Your task to perform on an android device: Open eBay Image 0: 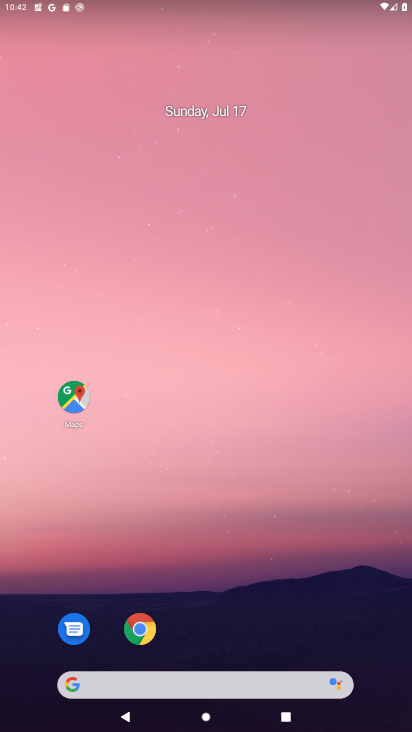
Step 0: drag from (198, 684) to (240, 210)
Your task to perform on an android device: Open eBay Image 1: 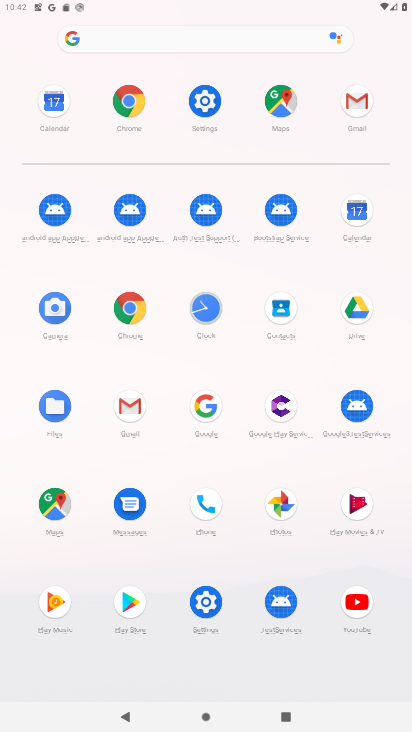
Step 1: click (127, 101)
Your task to perform on an android device: Open eBay Image 2: 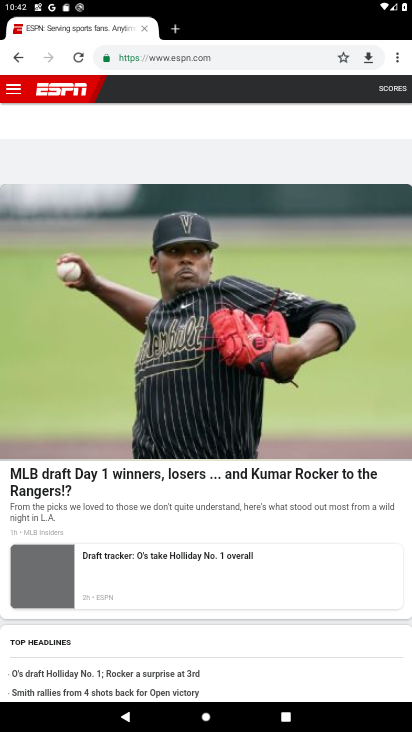
Step 2: click (242, 63)
Your task to perform on an android device: Open eBay Image 3: 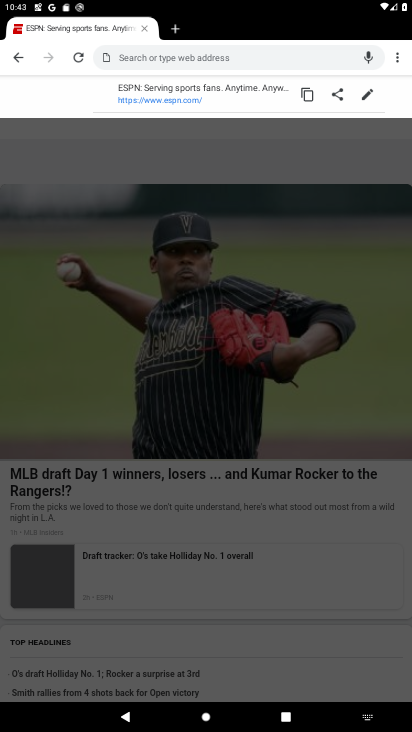
Step 3: type "eBay"
Your task to perform on an android device: Open eBay Image 4: 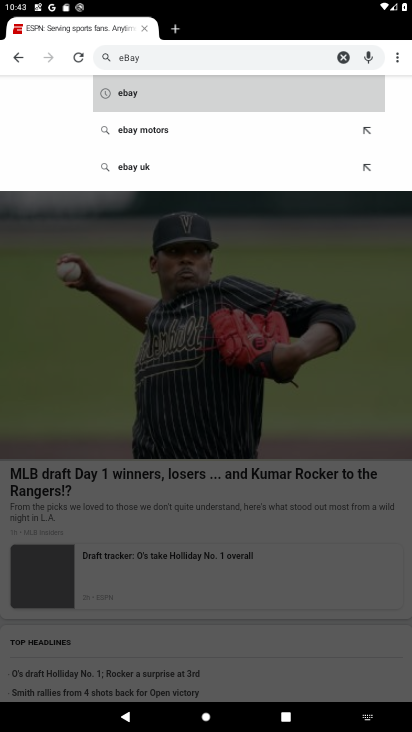
Step 4: click (144, 95)
Your task to perform on an android device: Open eBay Image 5: 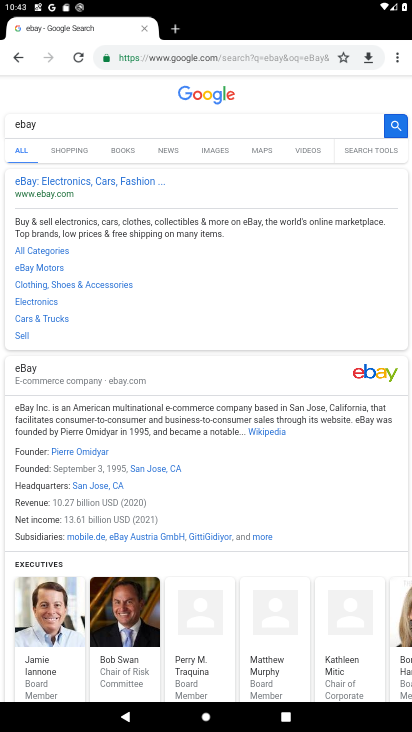
Step 5: click (98, 193)
Your task to perform on an android device: Open eBay Image 6: 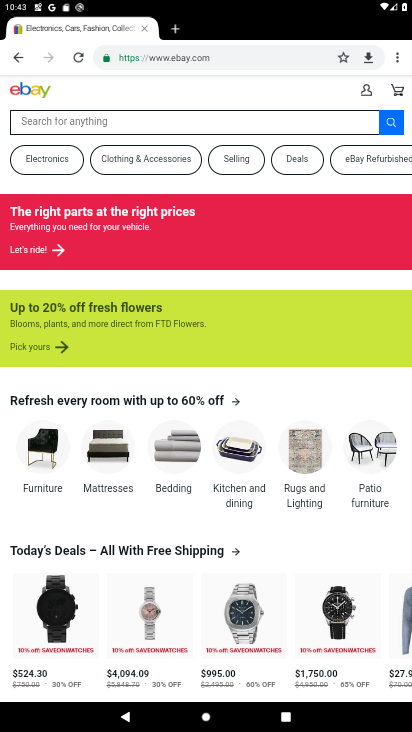
Step 6: task complete